Your task to perform on an android device: choose inbox layout in the gmail app Image 0: 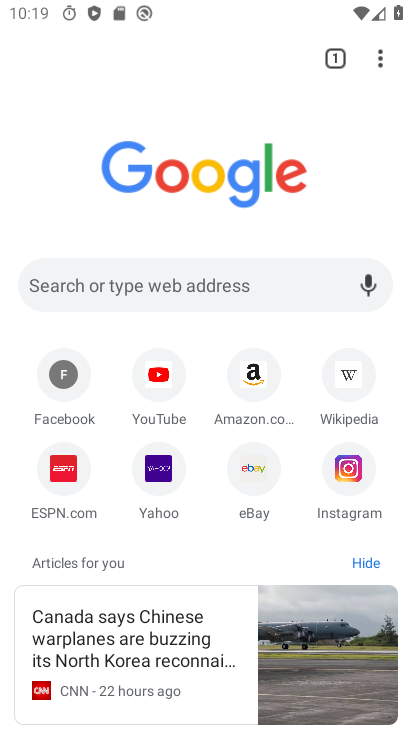
Step 0: press home button
Your task to perform on an android device: choose inbox layout in the gmail app Image 1: 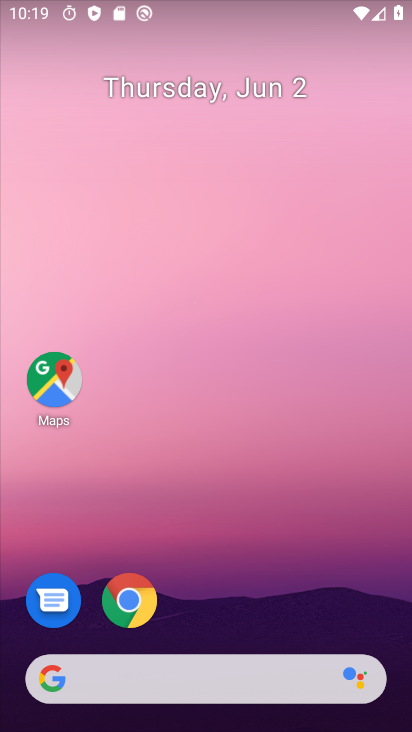
Step 1: drag from (237, 626) to (215, 53)
Your task to perform on an android device: choose inbox layout in the gmail app Image 2: 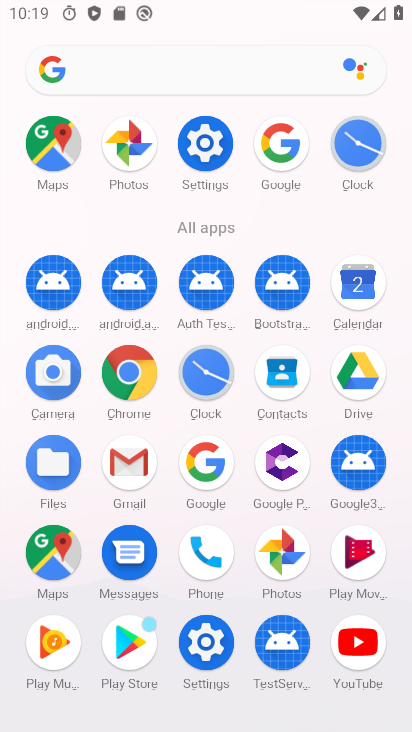
Step 2: click (123, 466)
Your task to perform on an android device: choose inbox layout in the gmail app Image 3: 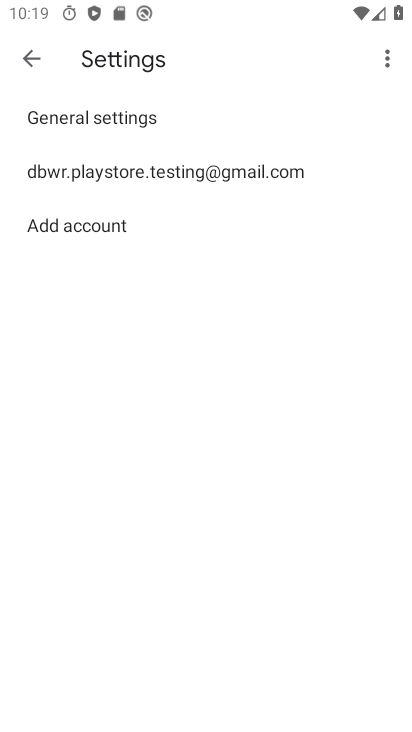
Step 3: click (225, 180)
Your task to perform on an android device: choose inbox layout in the gmail app Image 4: 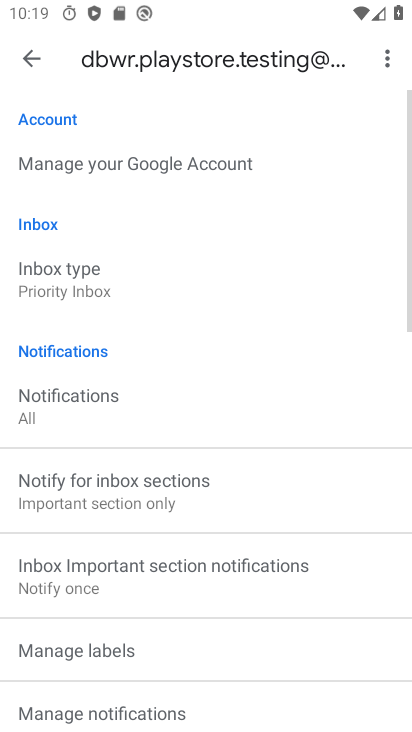
Step 4: drag from (269, 499) to (315, 418)
Your task to perform on an android device: choose inbox layout in the gmail app Image 5: 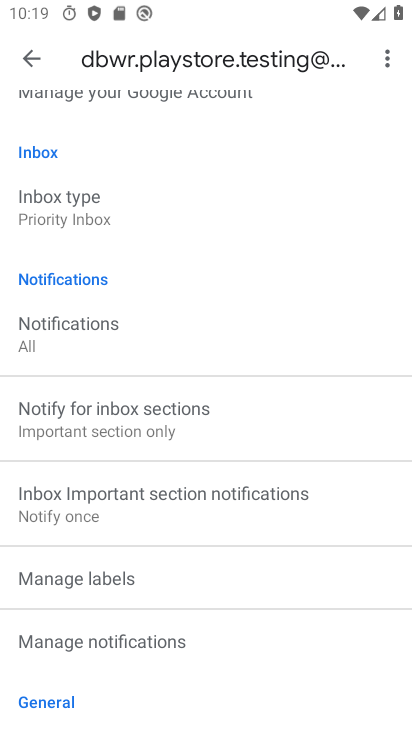
Step 5: click (100, 209)
Your task to perform on an android device: choose inbox layout in the gmail app Image 6: 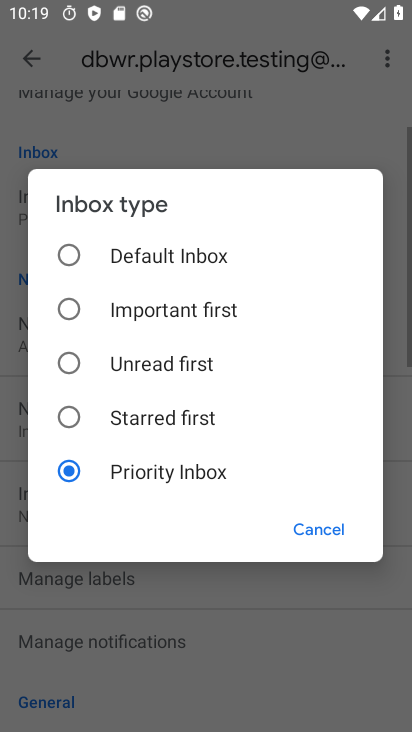
Step 6: click (76, 268)
Your task to perform on an android device: choose inbox layout in the gmail app Image 7: 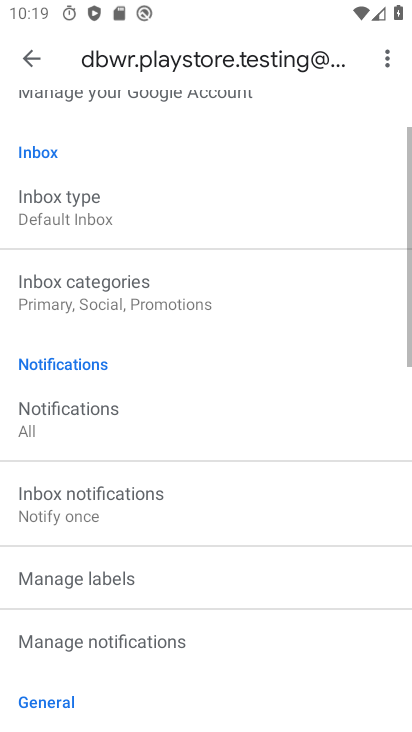
Step 7: task complete